Your task to perform on an android device: What's the news in the Dominican Republic? Image 0: 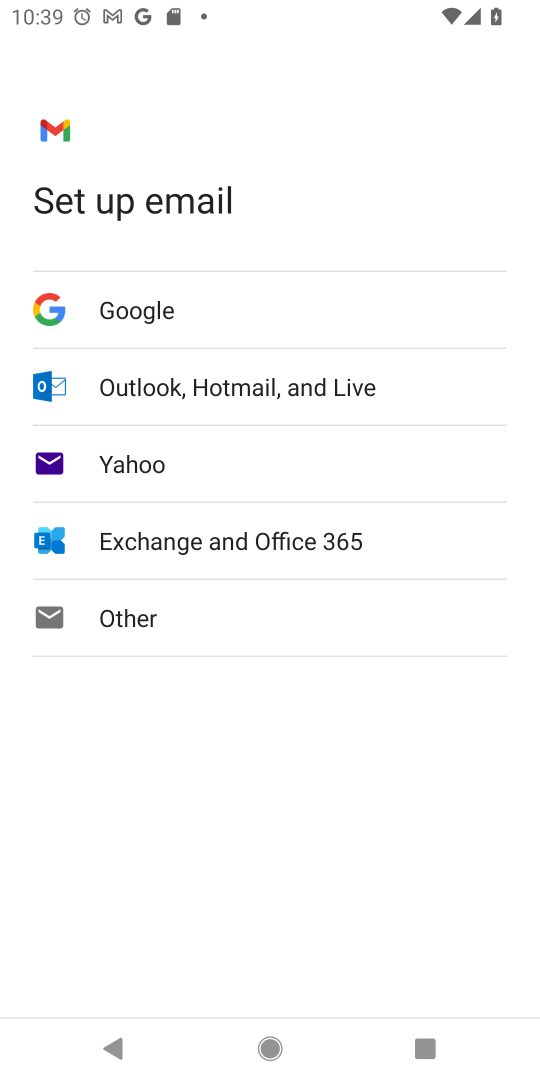
Step 0: press home button
Your task to perform on an android device: What's the news in the Dominican Republic? Image 1: 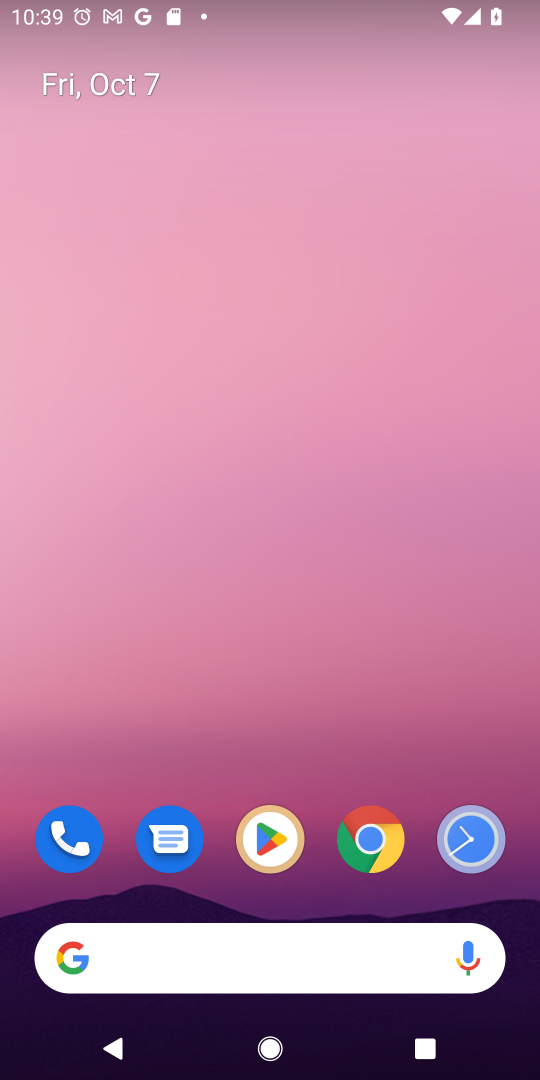
Step 1: click (388, 835)
Your task to perform on an android device: What's the news in the Dominican Republic? Image 2: 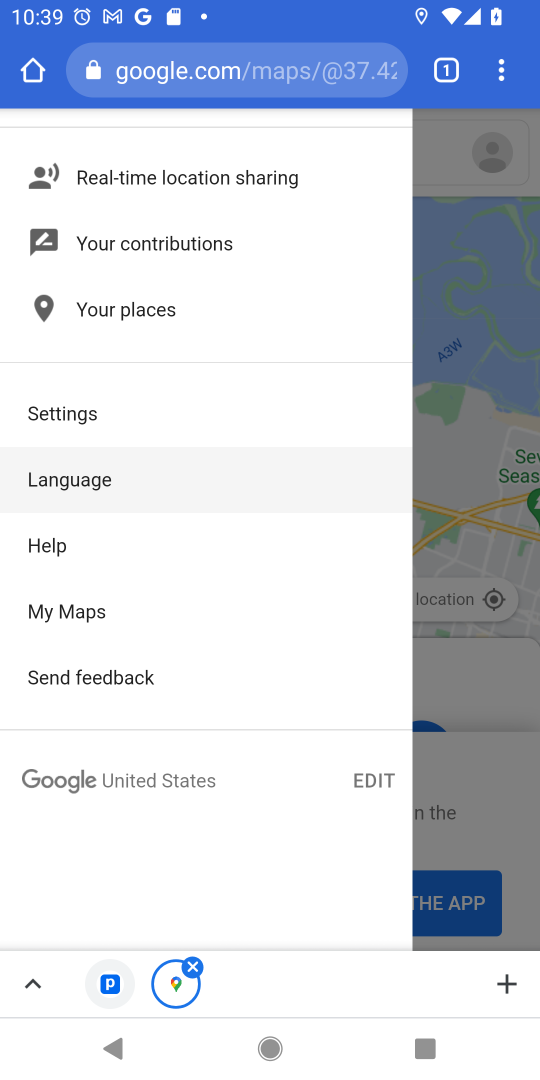
Step 2: click (289, 65)
Your task to perform on an android device: What's the news in the Dominican Republic? Image 3: 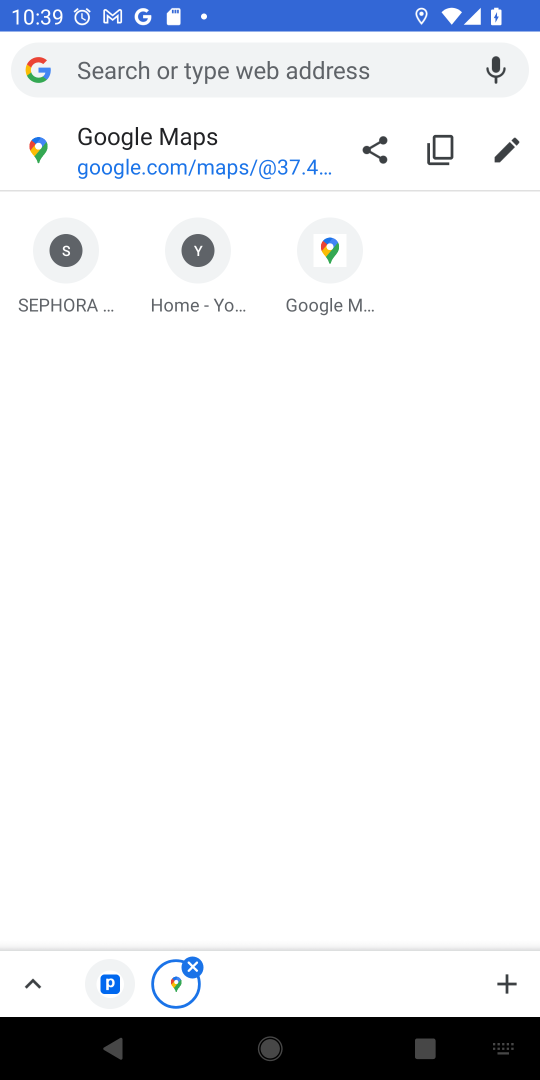
Step 3: type "dominican republic"
Your task to perform on an android device: What's the news in the Dominican Republic? Image 4: 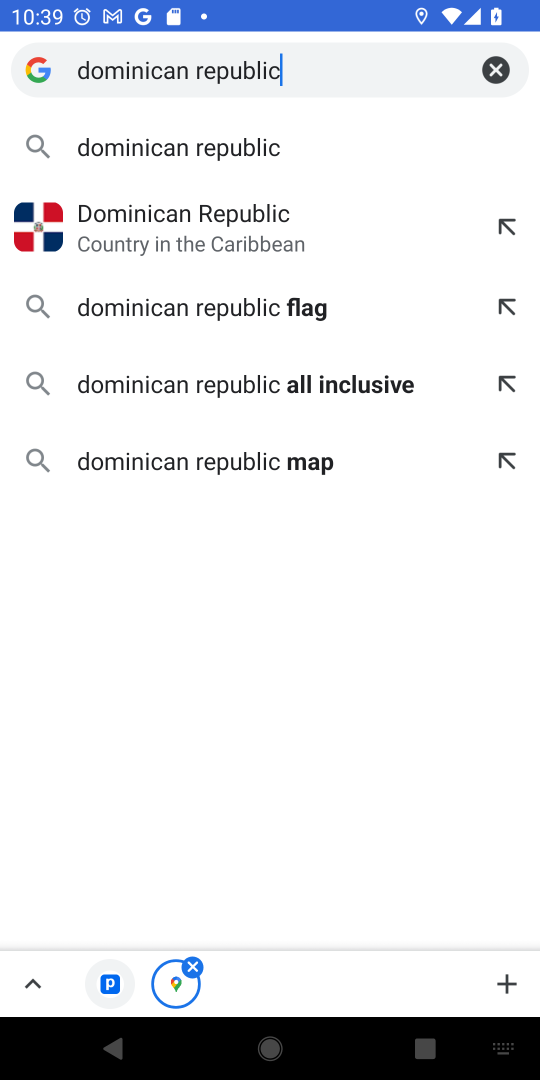
Step 4: click (216, 218)
Your task to perform on an android device: What's the news in the Dominican Republic? Image 5: 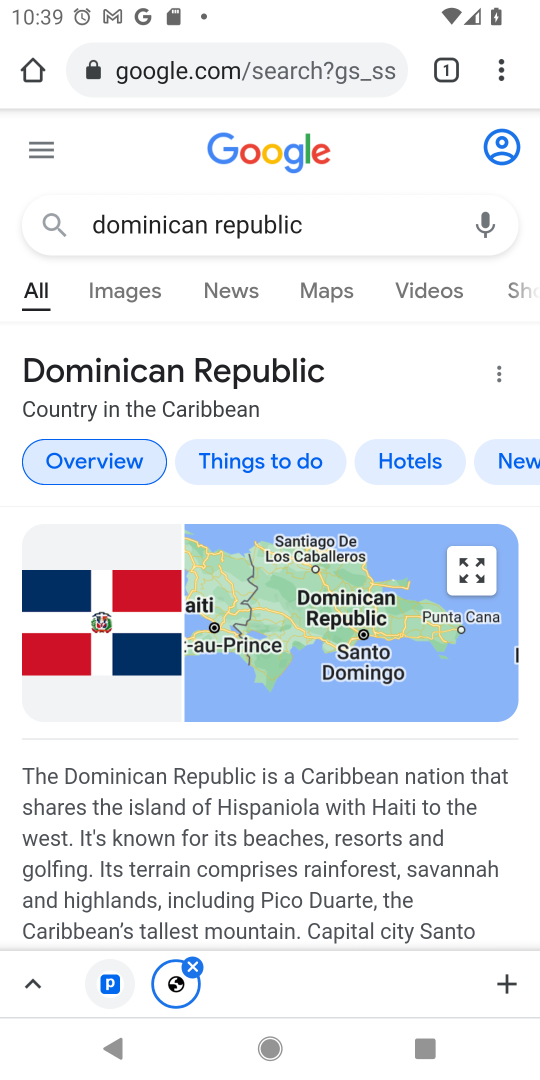
Step 5: click (229, 293)
Your task to perform on an android device: What's the news in the Dominican Republic? Image 6: 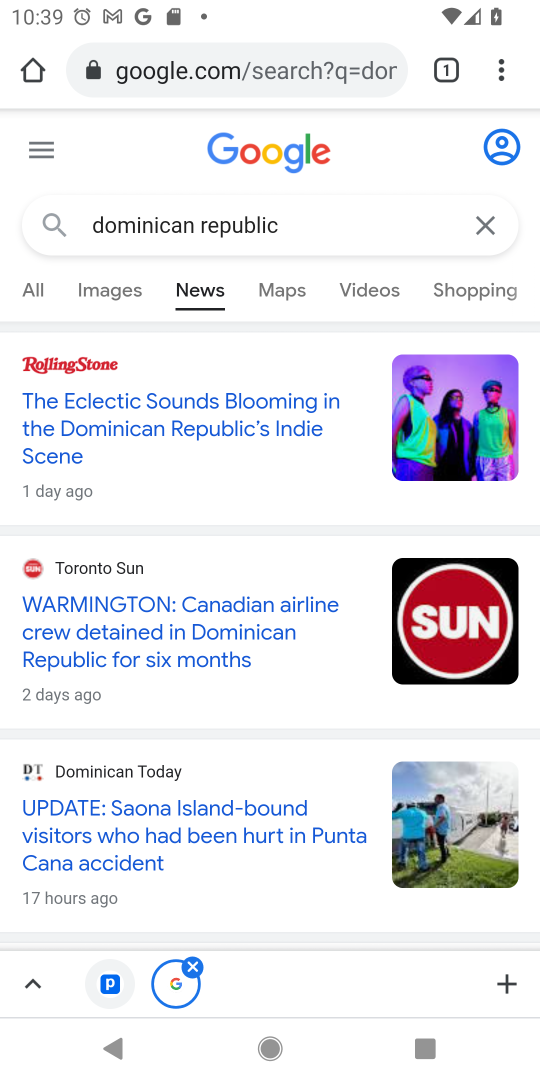
Step 6: drag from (229, 888) to (277, 455)
Your task to perform on an android device: What's the news in the Dominican Republic? Image 7: 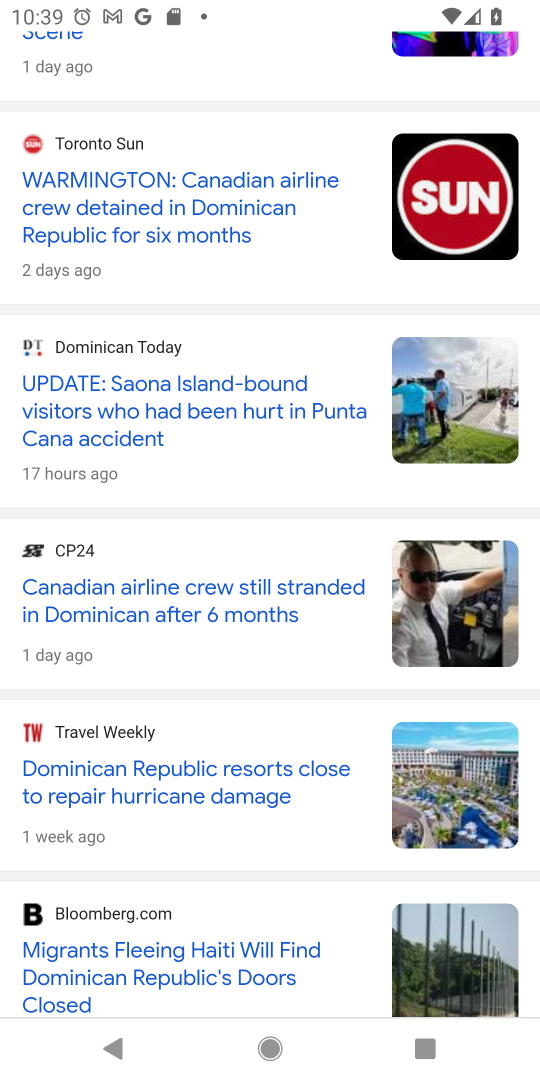
Step 7: drag from (218, 737) to (289, 473)
Your task to perform on an android device: What's the news in the Dominican Republic? Image 8: 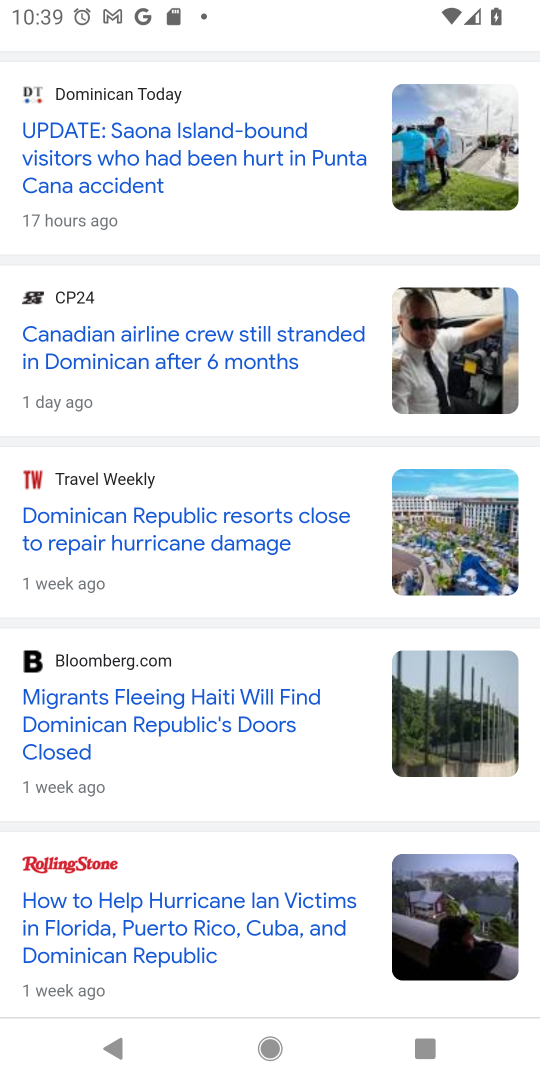
Step 8: drag from (268, 966) to (334, 591)
Your task to perform on an android device: What's the news in the Dominican Republic? Image 9: 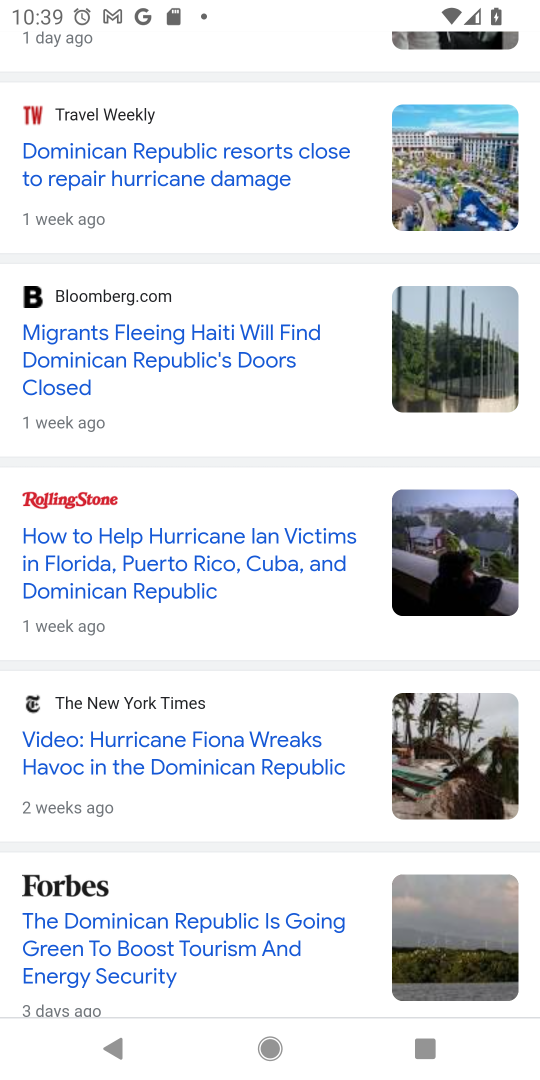
Step 9: drag from (287, 924) to (298, 984)
Your task to perform on an android device: What's the news in the Dominican Republic? Image 10: 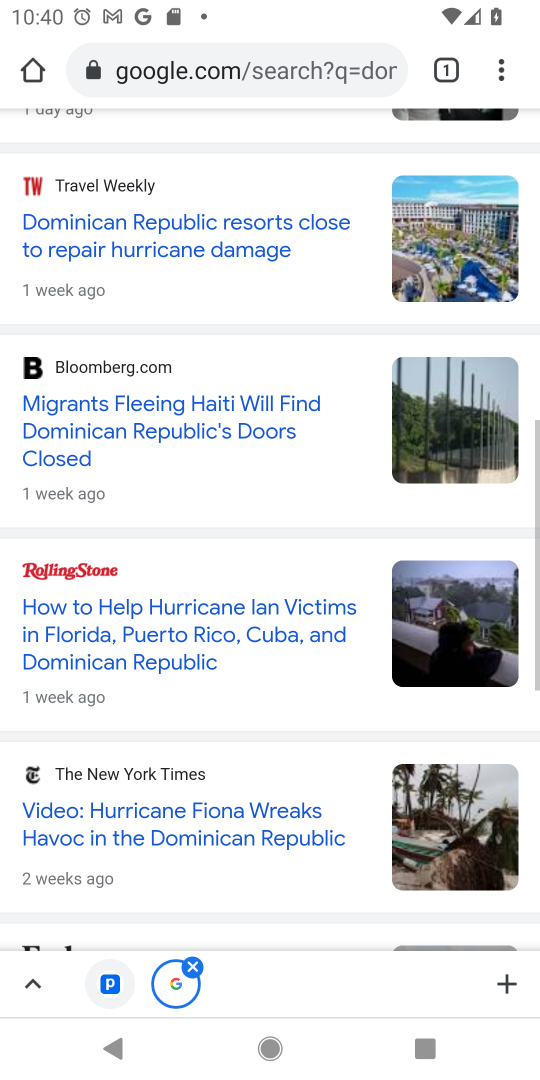
Step 10: drag from (174, 441) to (245, 953)
Your task to perform on an android device: What's the news in the Dominican Republic? Image 11: 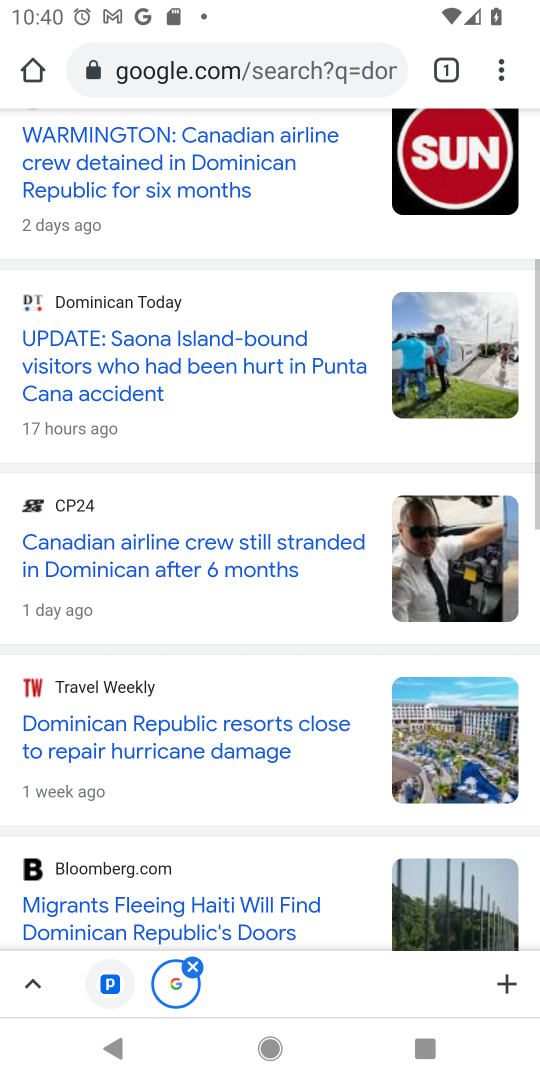
Step 11: drag from (198, 323) to (289, 927)
Your task to perform on an android device: What's the news in the Dominican Republic? Image 12: 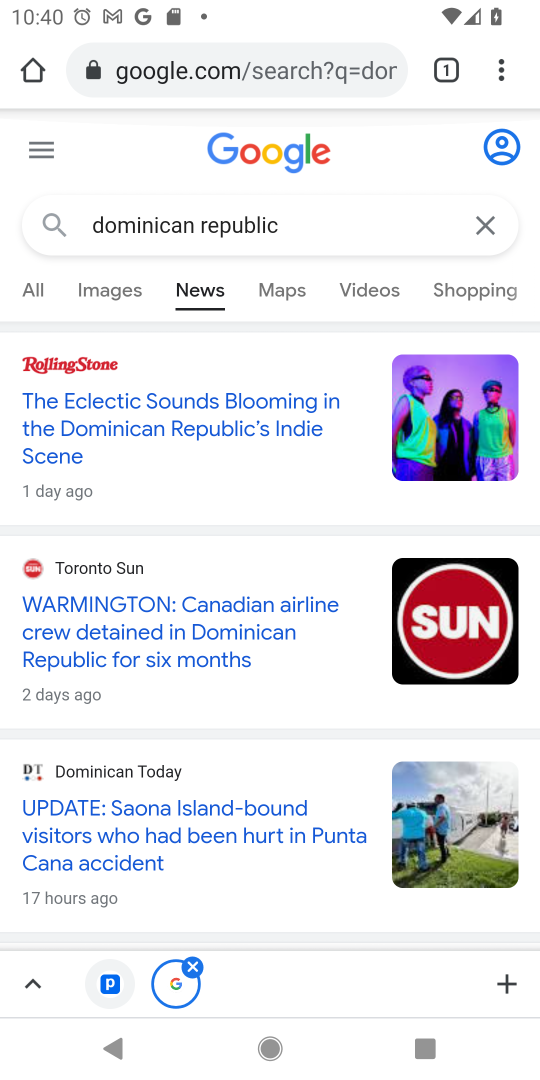
Step 12: drag from (161, 197) to (163, 810)
Your task to perform on an android device: What's the news in the Dominican Republic? Image 13: 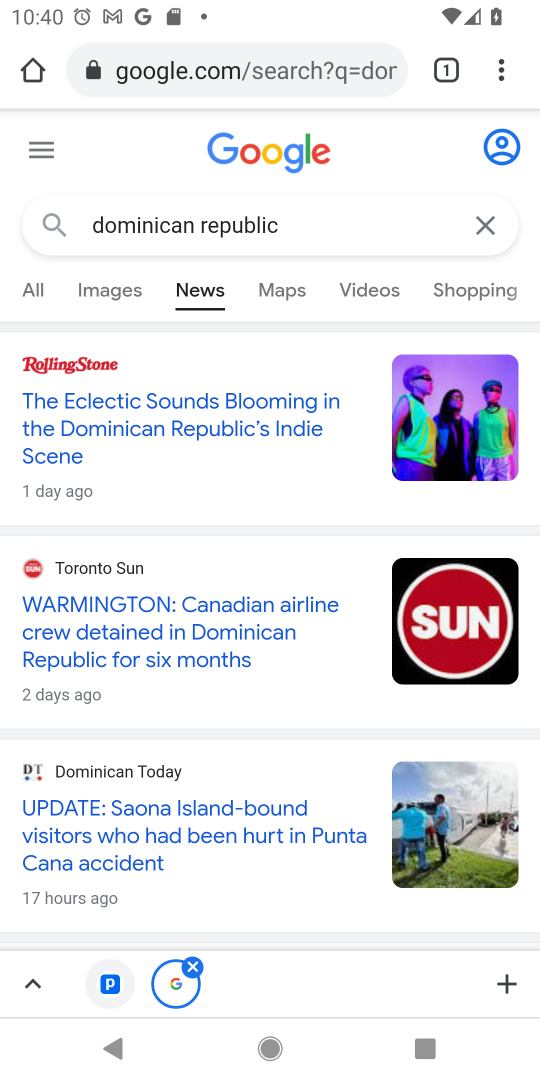
Step 13: drag from (97, 734) to (156, 446)
Your task to perform on an android device: What's the news in the Dominican Republic? Image 14: 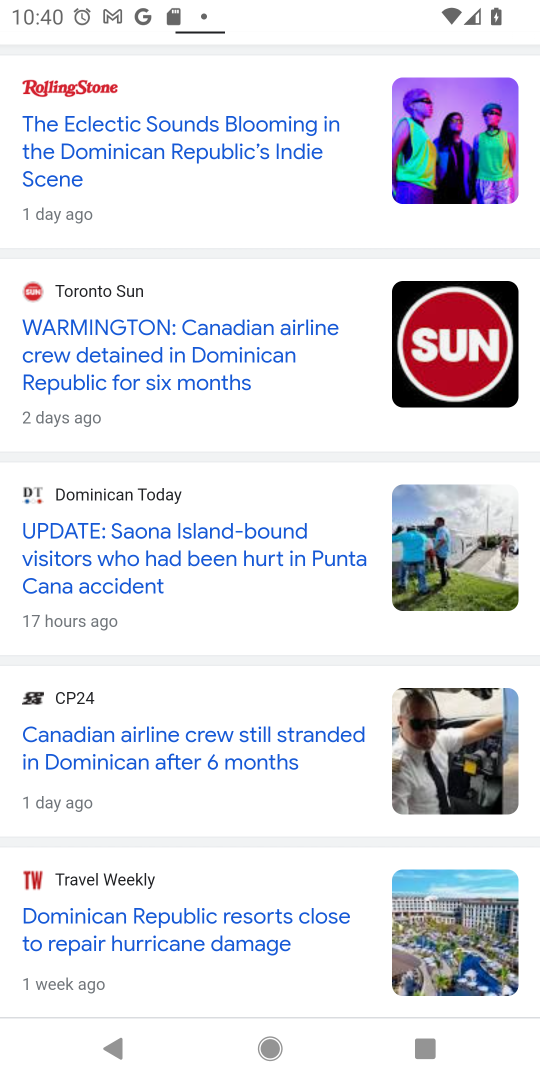
Step 14: drag from (128, 869) to (256, 479)
Your task to perform on an android device: What's the news in the Dominican Republic? Image 15: 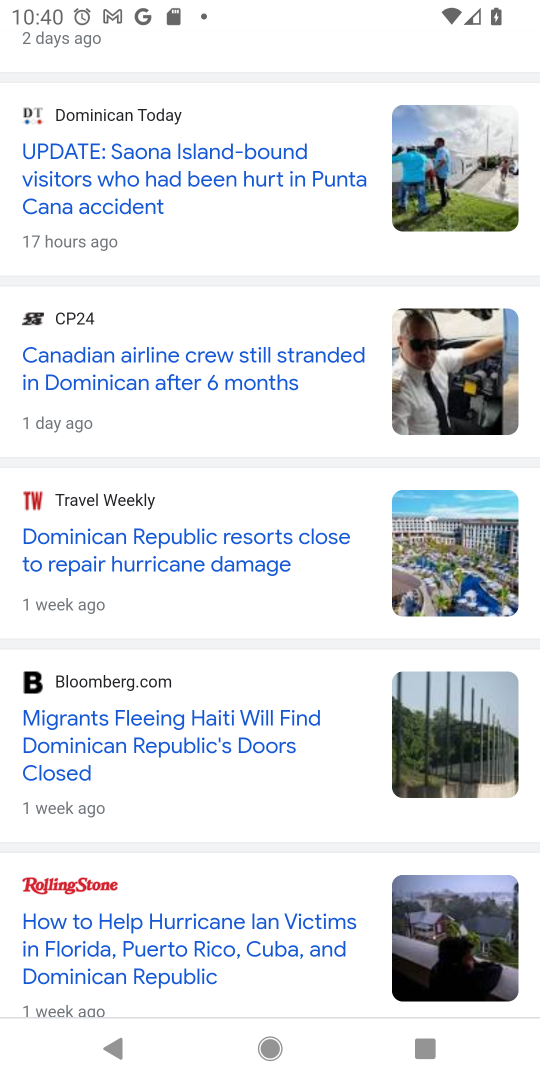
Step 15: drag from (80, 728) to (180, 451)
Your task to perform on an android device: What's the news in the Dominican Republic? Image 16: 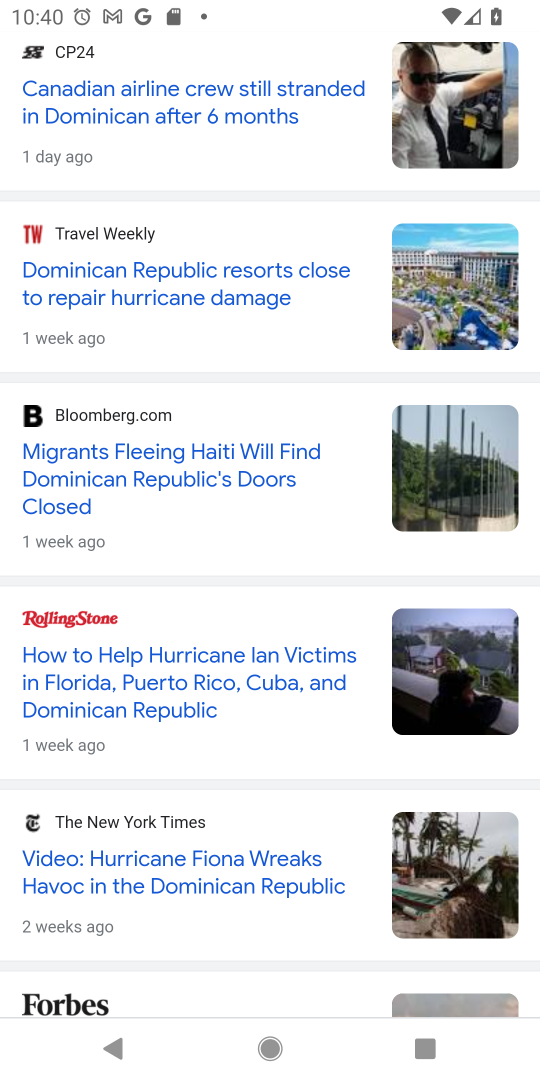
Step 16: drag from (70, 862) to (181, 810)
Your task to perform on an android device: What's the news in the Dominican Republic? Image 17: 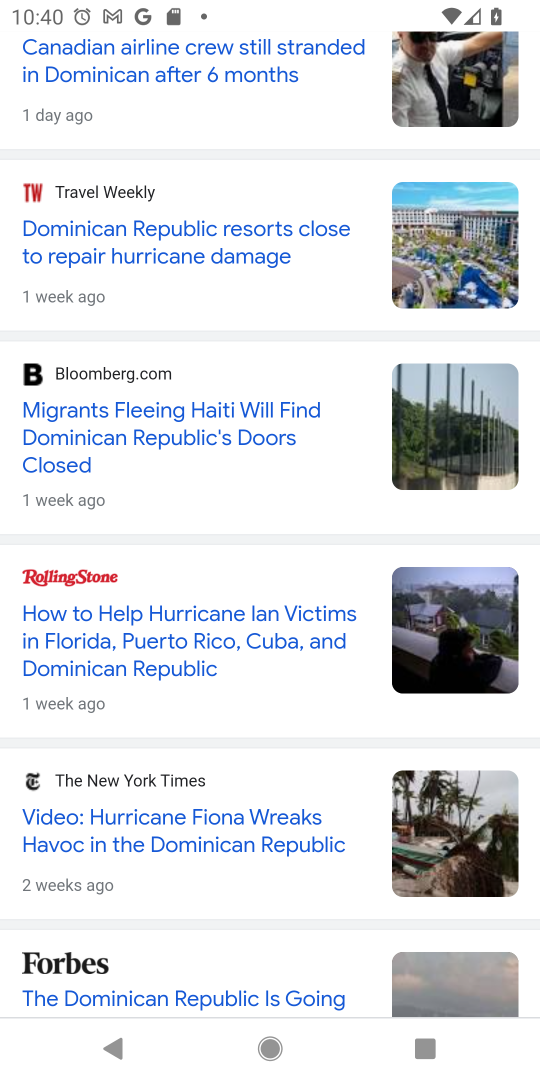
Step 17: click (197, 435)
Your task to perform on an android device: What's the news in the Dominican Republic? Image 18: 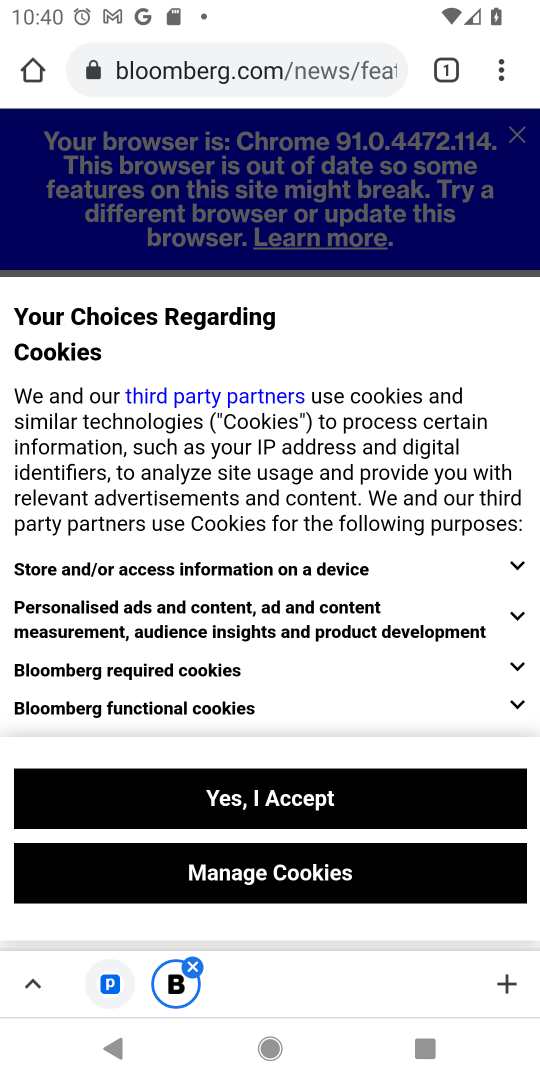
Step 18: click (254, 817)
Your task to perform on an android device: What's the news in the Dominican Republic? Image 19: 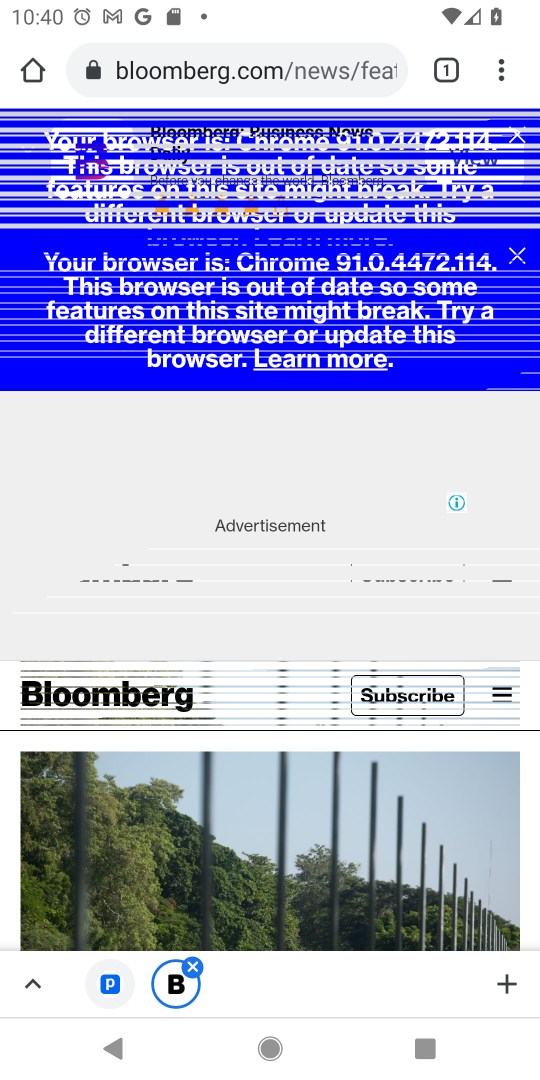
Step 19: task complete